Your task to perform on an android device: Install the Spotify app Image 0: 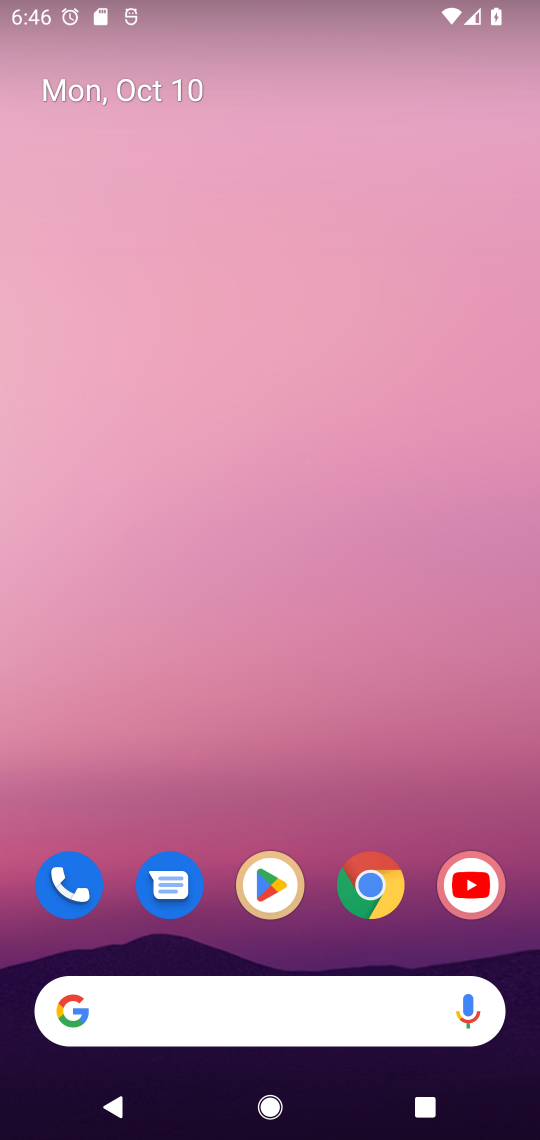
Step 0: click (364, 887)
Your task to perform on an android device: Install the Spotify app Image 1: 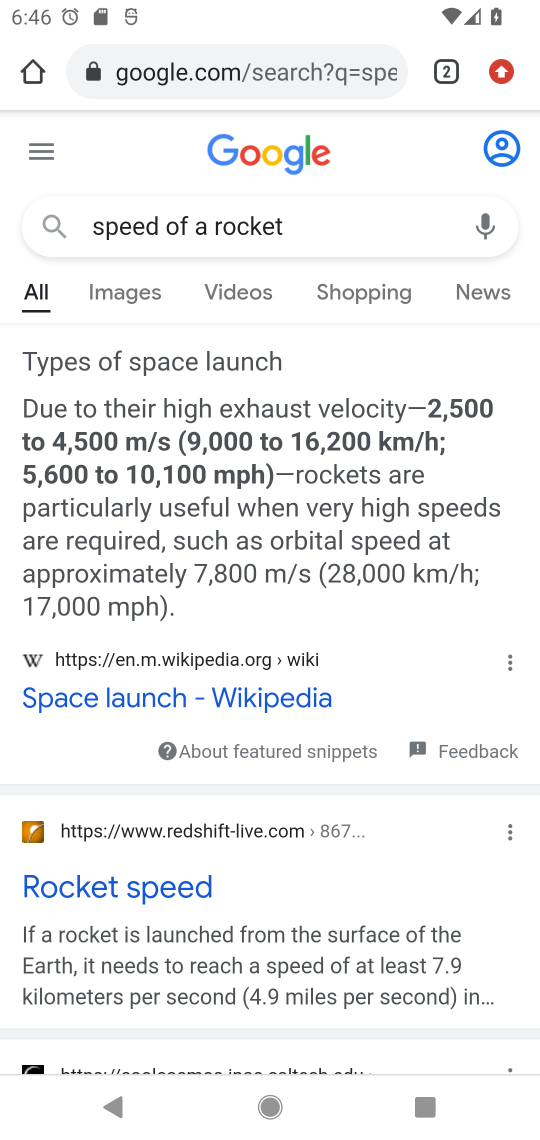
Step 1: click (277, 1106)
Your task to perform on an android device: Install the Spotify app Image 2: 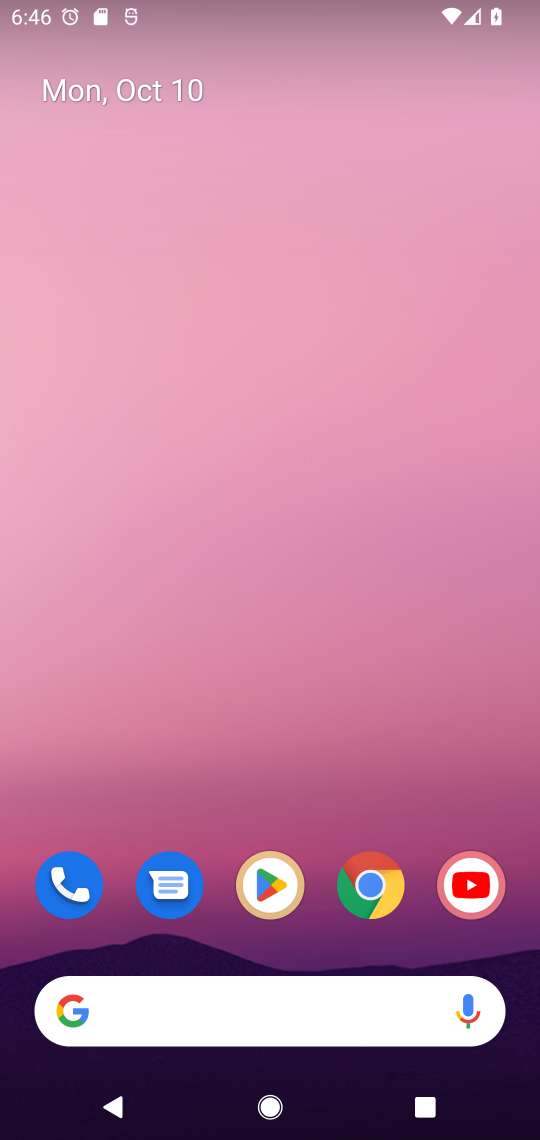
Step 2: click (265, 886)
Your task to perform on an android device: Install the Spotify app Image 3: 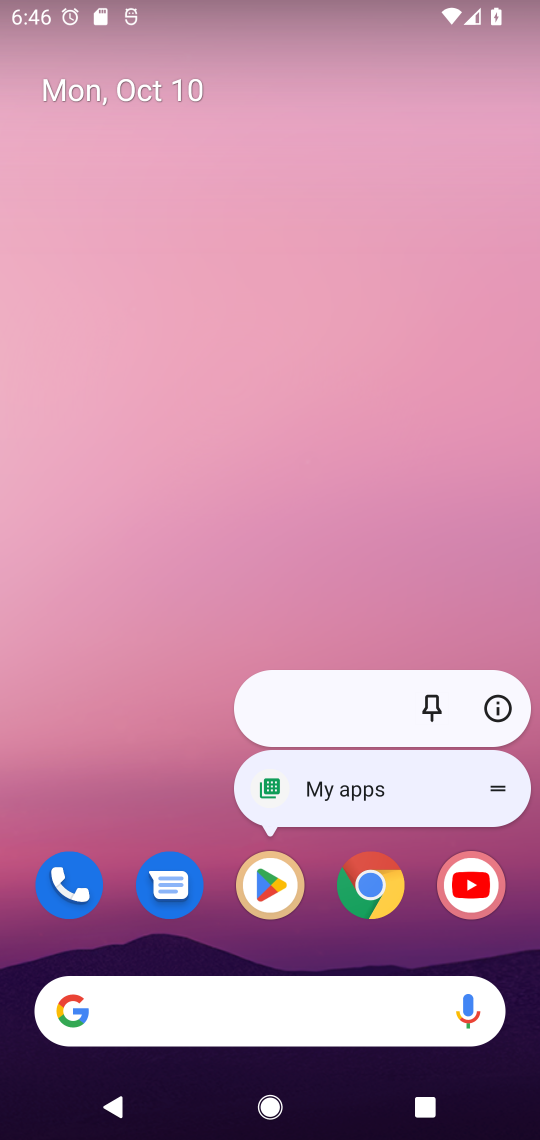
Step 3: click (116, 650)
Your task to perform on an android device: Install the Spotify app Image 4: 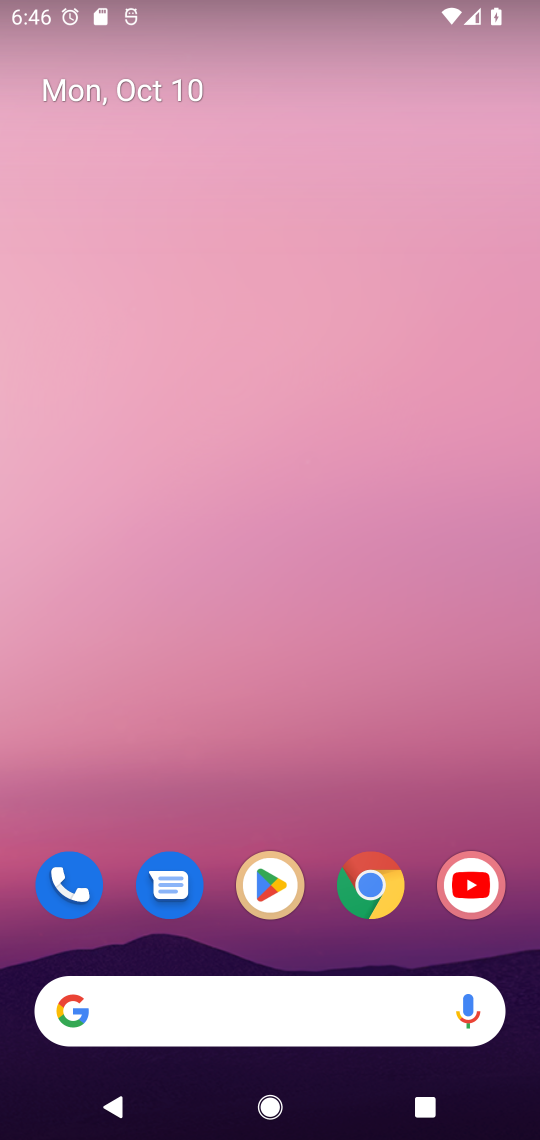
Step 4: click (274, 894)
Your task to perform on an android device: Install the Spotify app Image 5: 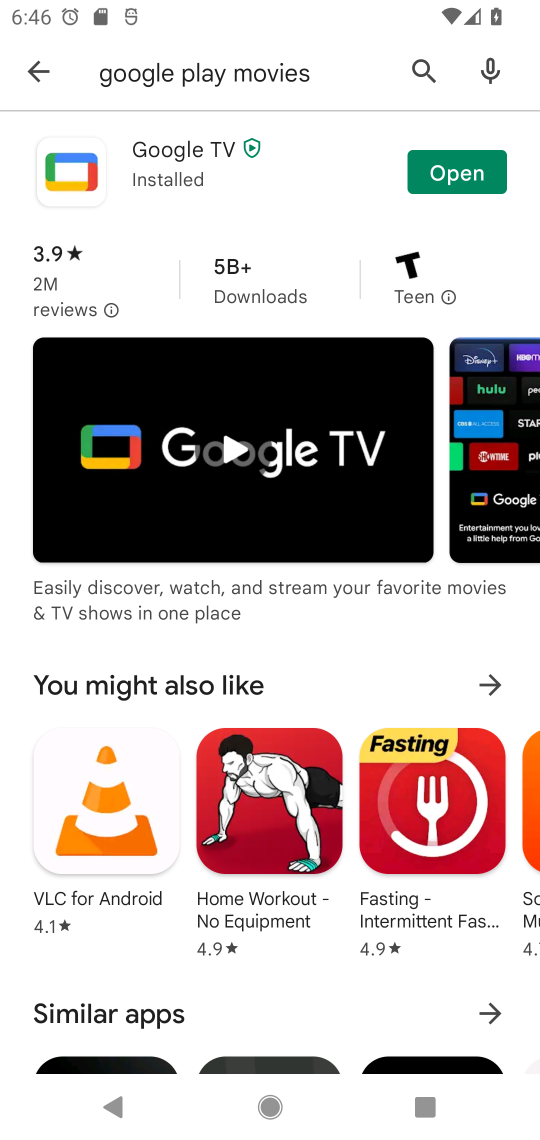
Step 5: click (428, 71)
Your task to perform on an android device: Install the Spotify app Image 6: 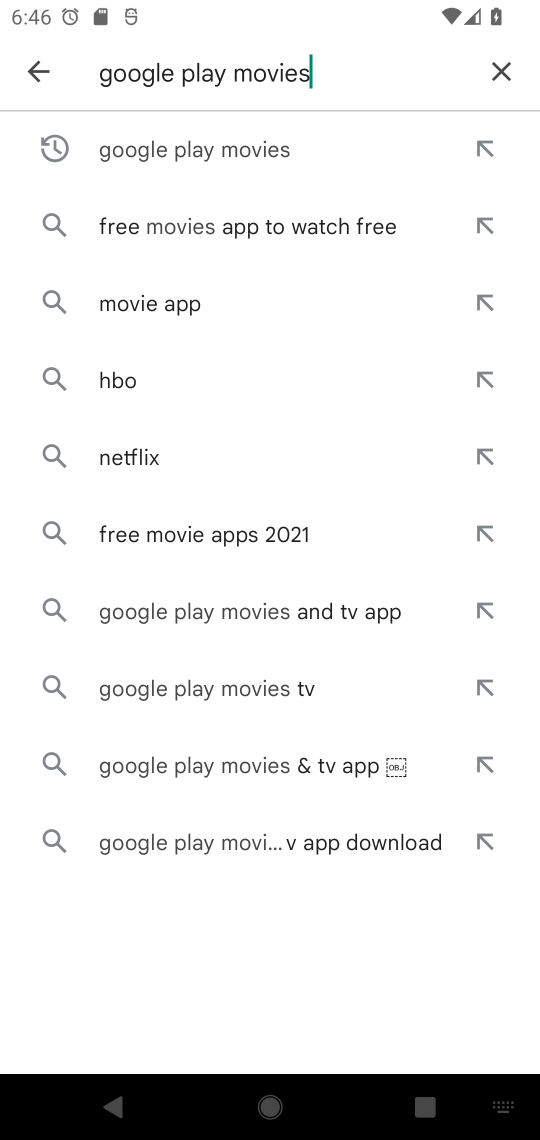
Step 6: click (504, 73)
Your task to perform on an android device: Install the Spotify app Image 7: 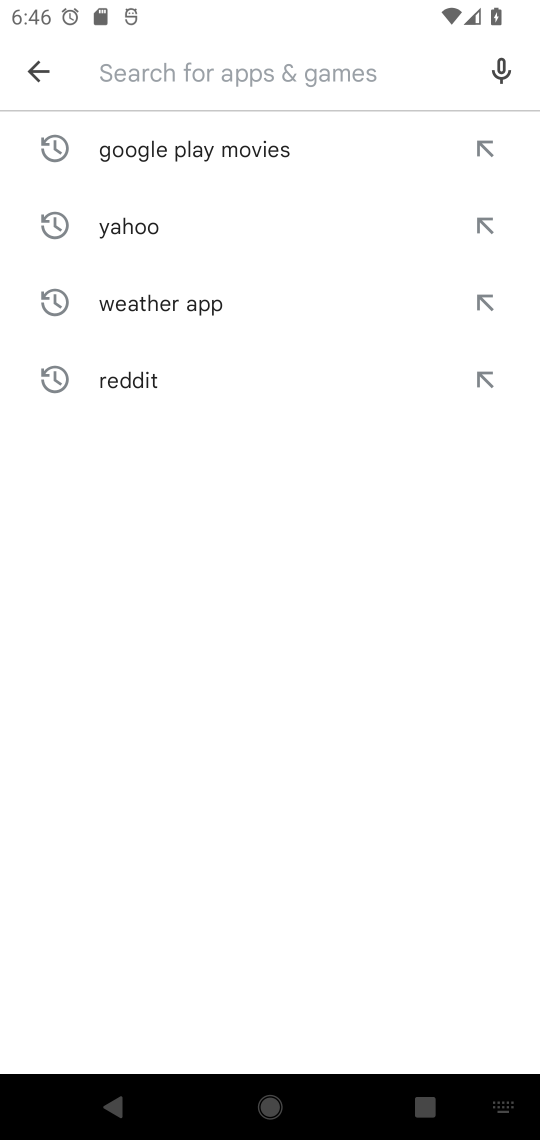
Step 7: click (304, 73)
Your task to perform on an android device: Install the Spotify app Image 8: 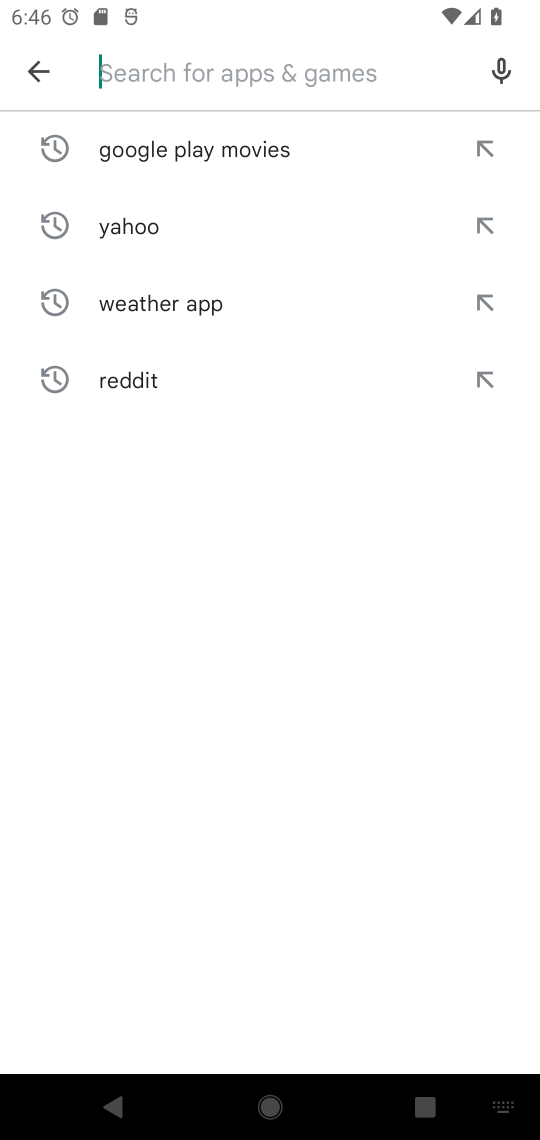
Step 8: type "Spotify"
Your task to perform on an android device: Install the Spotify app Image 9: 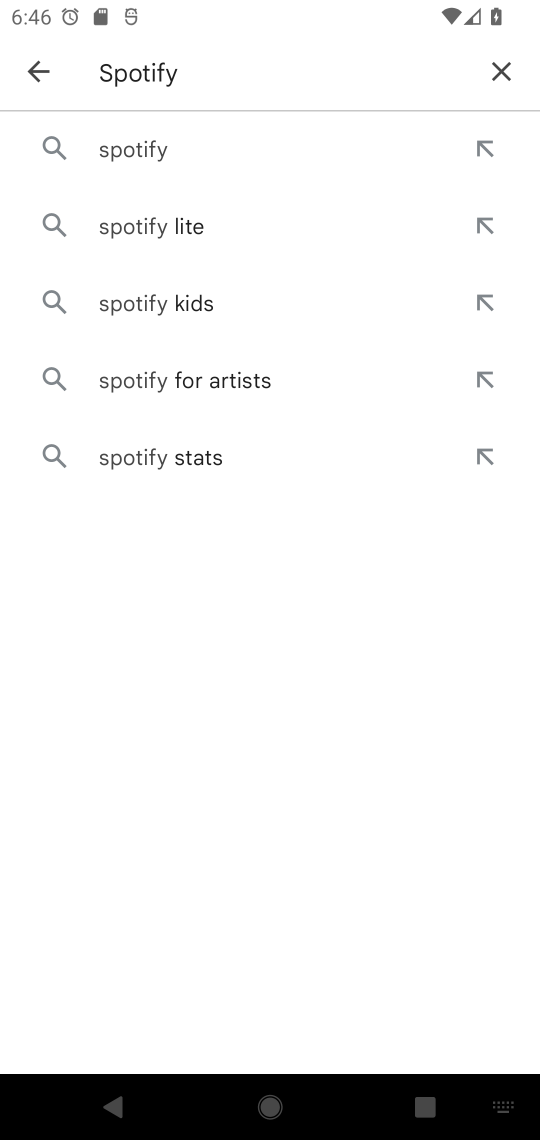
Step 9: click (139, 143)
Your task to perform on an android device: Install the Spotify app Image 10: 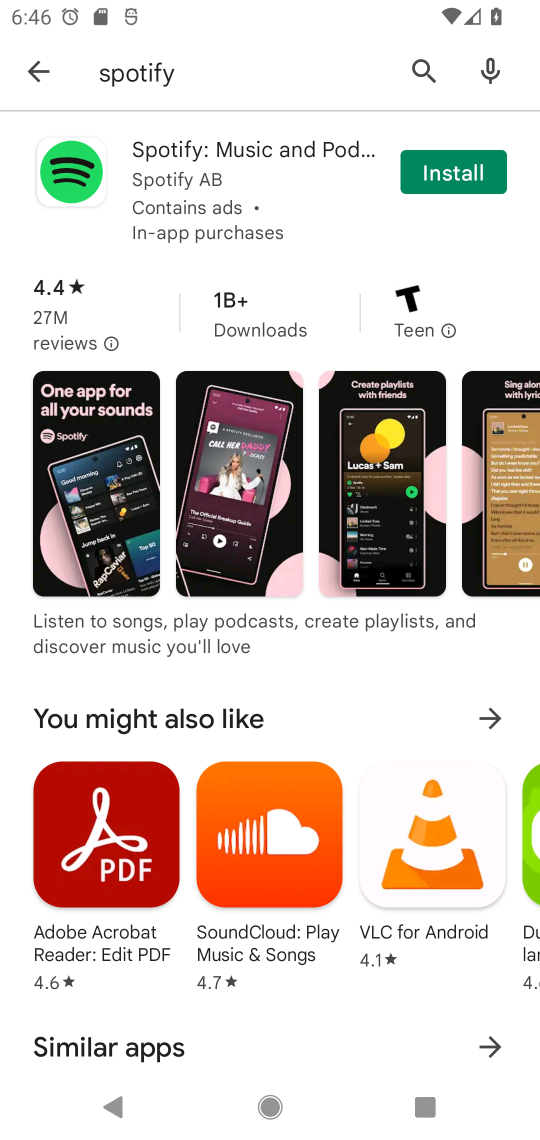
Step 10: click (469, 165)
Your task to perform on an android device: Install the Spotify app Image 11: 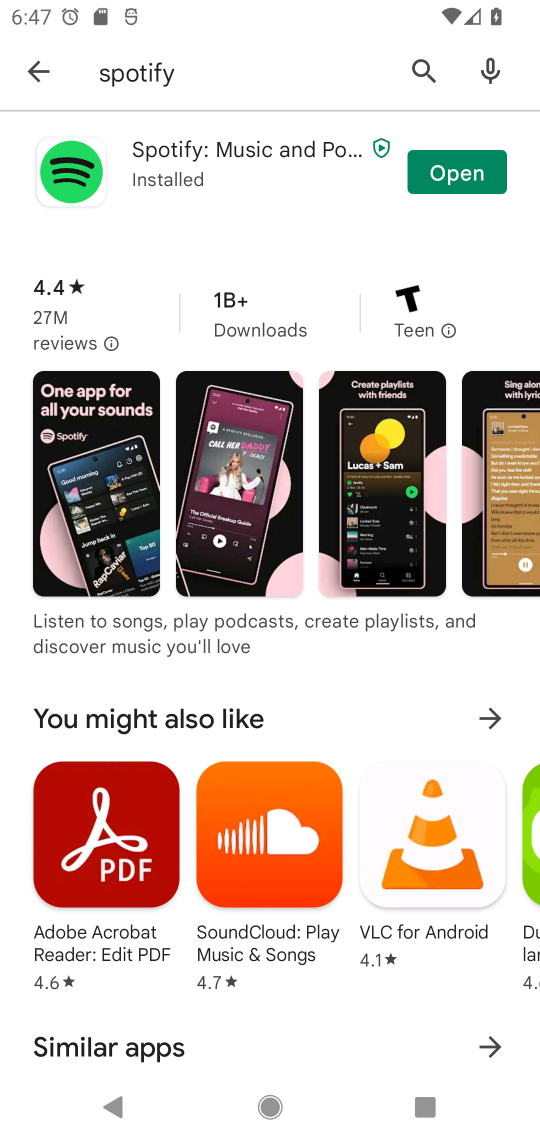
Step 11: task complete